Your task to perform on an android device: turn on location history Image 0: 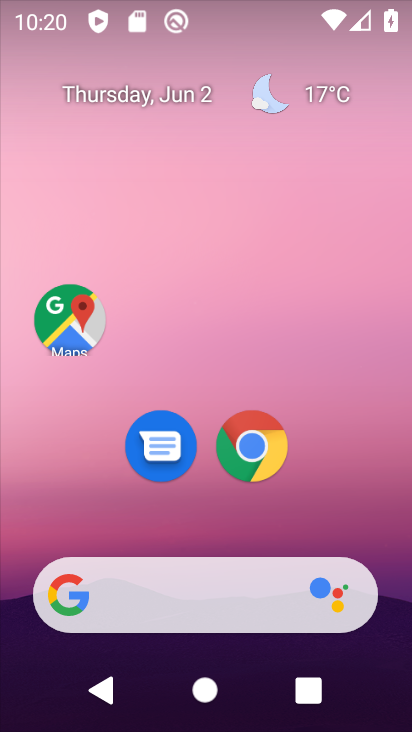
Step 0: drag from (341, 533) to (339, 49)
Your task to perform on an android device: turn on location history Image 1: 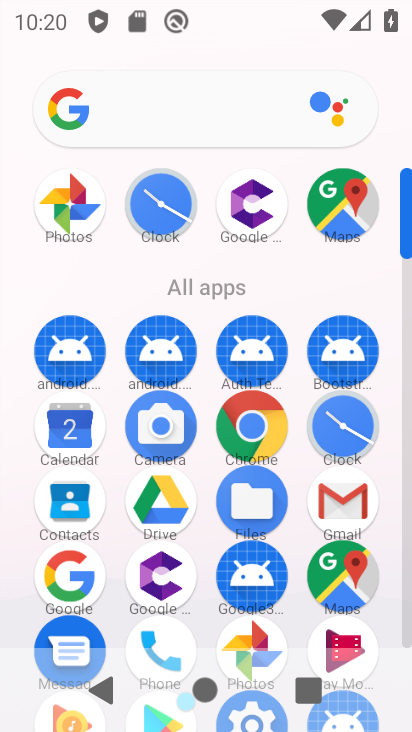
Step 1: click (263, 428)
Your task to perform on an android device: turn on location history Image 2: 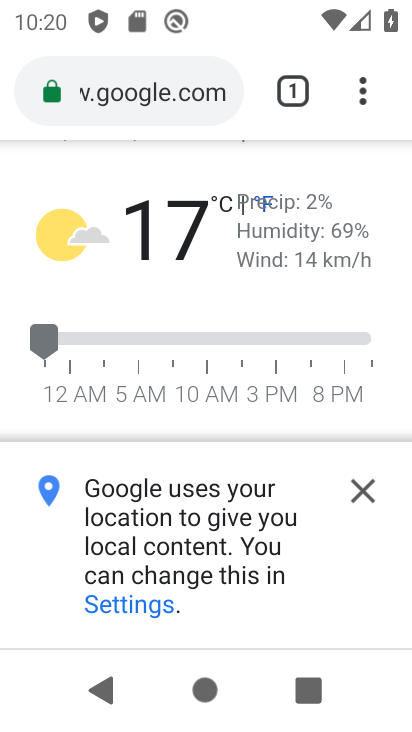
Step 2: drag from (363, 89) to (100, 713)
Your task to perform on an android device: turn on location history Image 3: 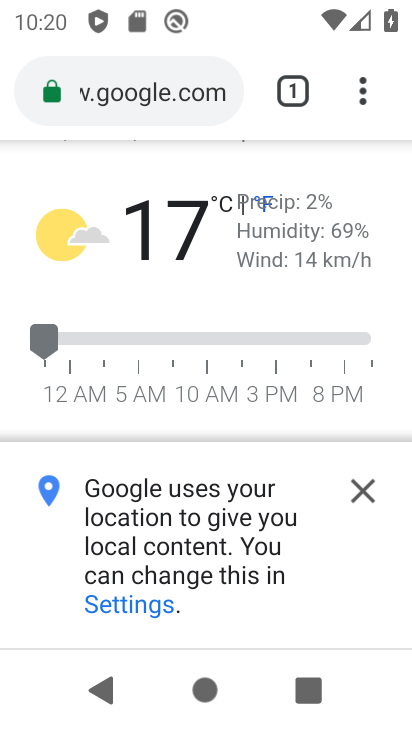
Step 3: drag from (381, 76) to (64, 473)
Your task to perform on an android device: turn on location history Image 4: 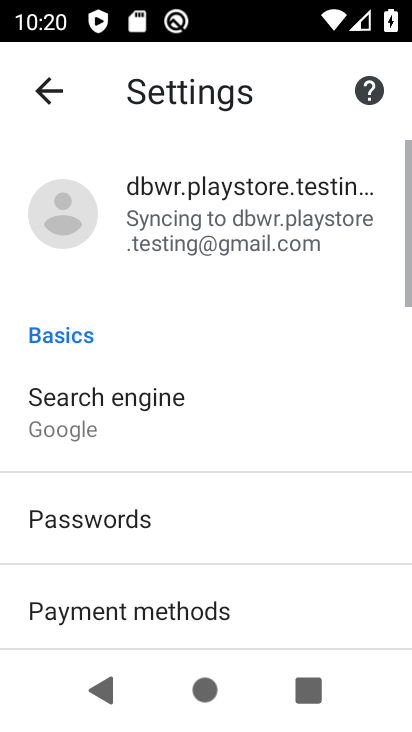
Step 4: drag from (298, 545) to (311, 97)
Your task to perform on an android device: turn on location history Image 5: 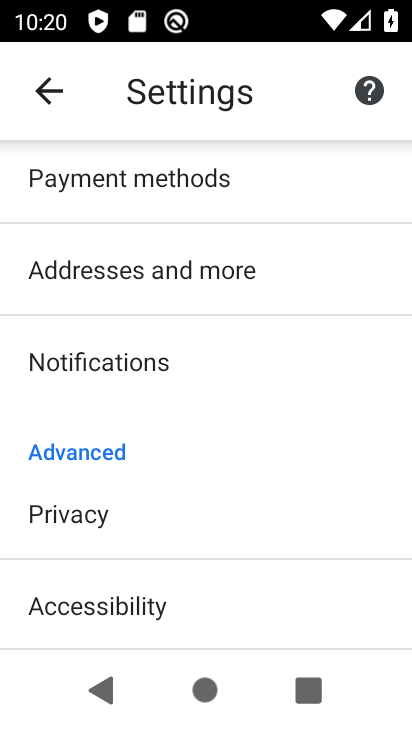
Step 5: drag from (231, 627) to (156, 49)
Your task to perform on an android device: turn on location history Image 6: 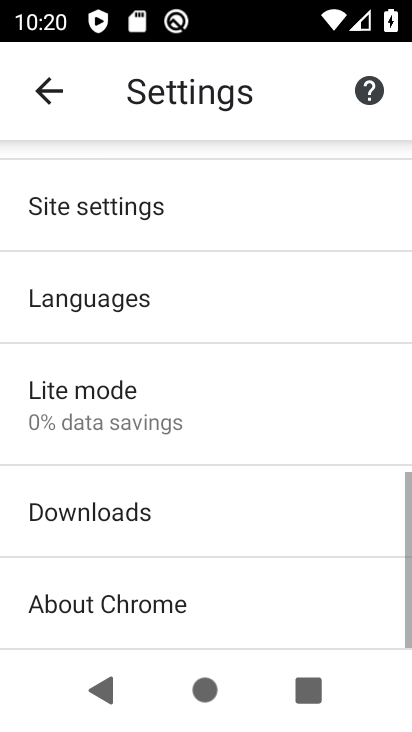
Step 6: drag from (202, 503) to (207, 404)
Your task to perform on an android device: turn on location history Image 7: 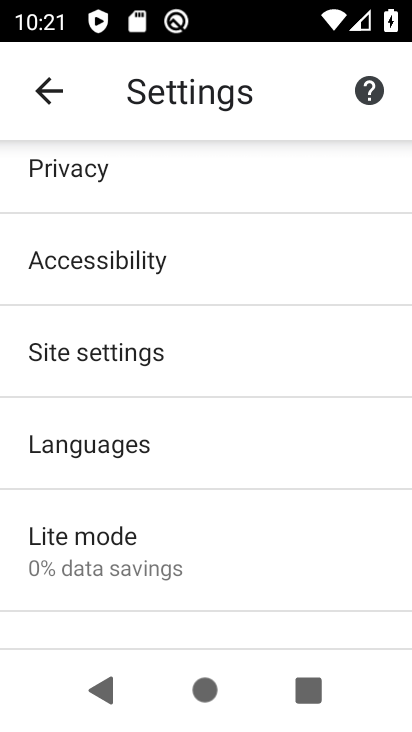
Step 7: press home button
Your task to perform on an android device: turn on location history Image 8: 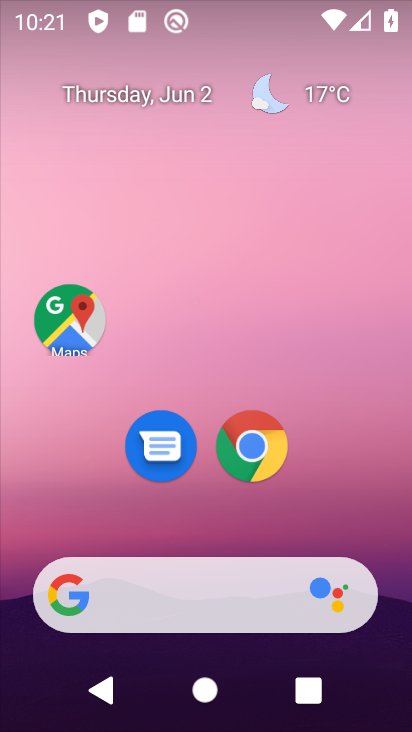
Step 8: drag from (174, 474) to (87, 2)
Your task to perform on an android device: turn on location history Image 9: 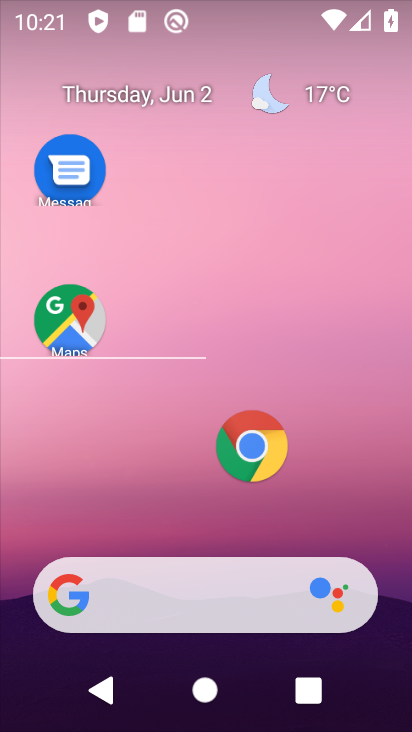
Step 9: click (127, 446)
Your task to perform on an android device: turn on location history Image 10: 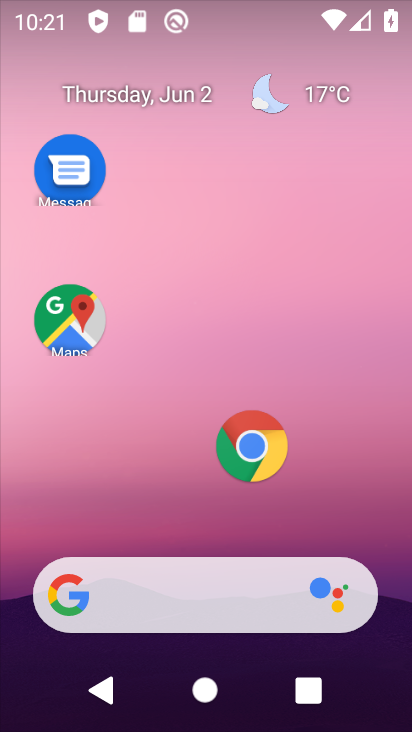
Step 10: drag from (141, 453) to (112, 4)
Your task to perform on an android device: turn on location history Image 11: 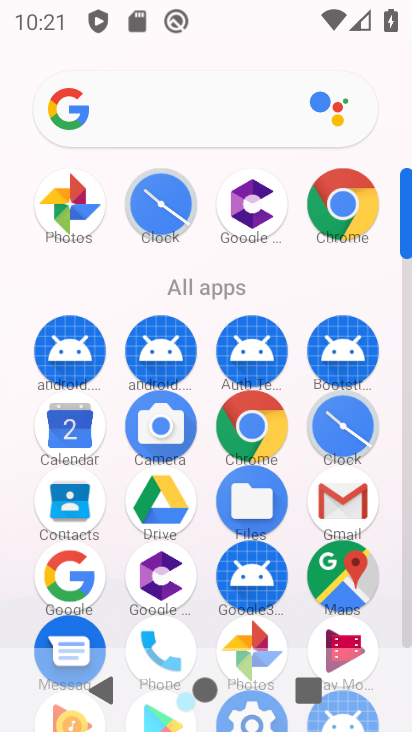
Step 11: click (331, 586)
Your task to perform on an android device: turn on location history Image 12: 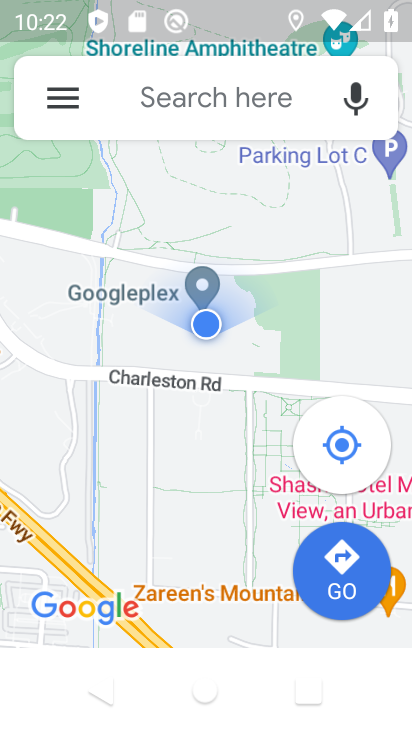
Step 12: click (65, 94)
Your task to perform on an android device: turn on location history Image 13: 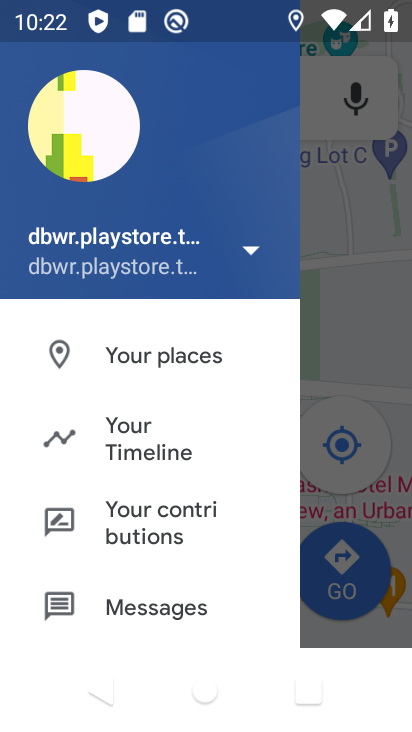
Step 13: drag from (182, 532) to (229, 262)
Your task to perform on an android device: turn on location history Image 14: 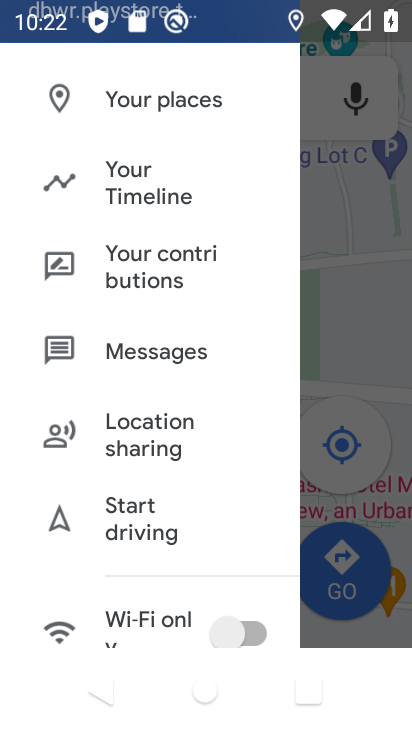
Step 14: click (92, 157)
Your task to perform on an android device: turn on location history Image 15: 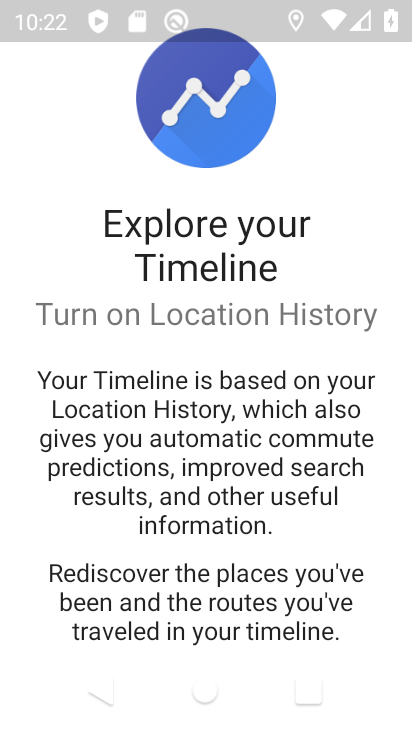
Step 15: drag from (215, 605) to (231, 168)
Your task to perform on an android device: turn on location history Image 16: 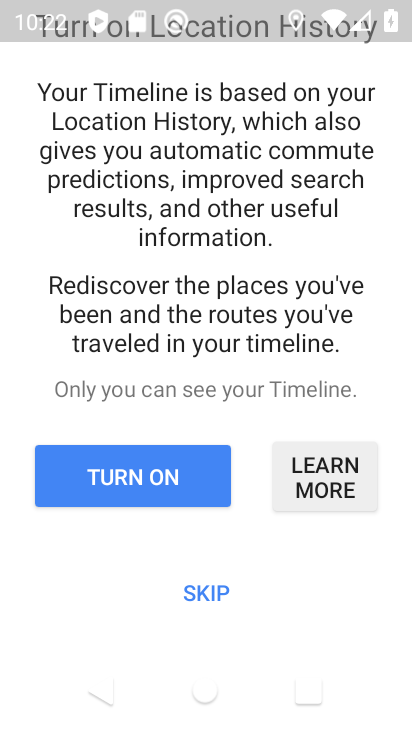
Step 16: click (183, 483)
Your task to perform on an android device: turn on location history Image 17: 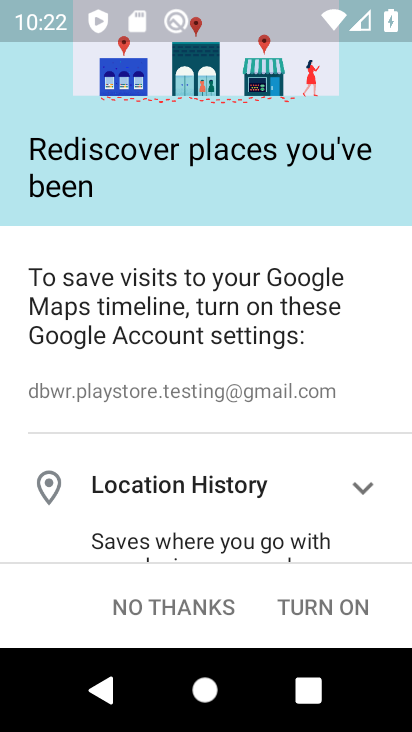
Step 17: drag from (255, 538) to (179, 1)
Your task to perform on an android device: turn on location history Image 18: 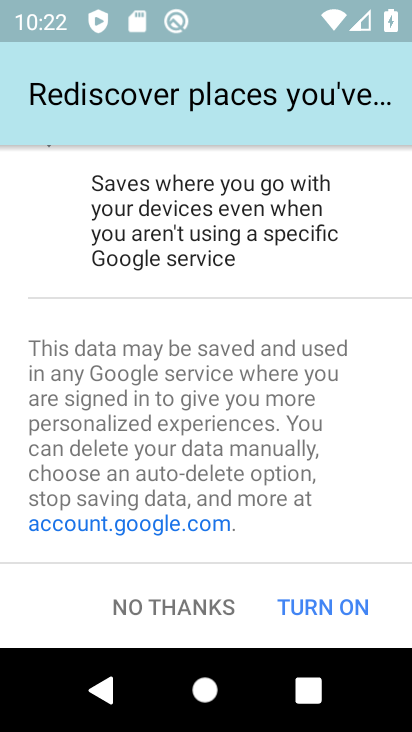
Step 18: click (340, 601)
Your task to perform on an android device: turn on location history Image 19: 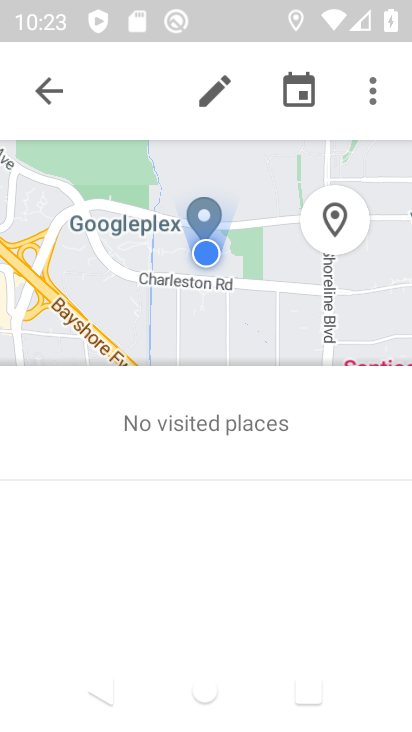
Step 19: drag from (384, 83) to (213, 591)
Your task to perform on an android device: turn on location history Image 20: 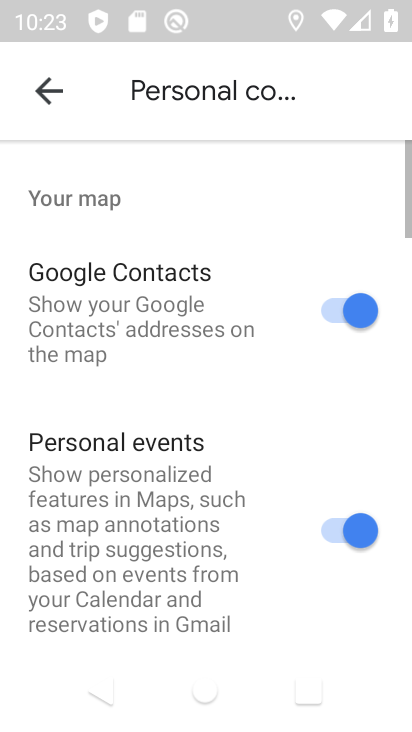
Step 20: drag from (213, 591) to (198, 58)
Your task to perform on an android device: turn on location history Image 21: 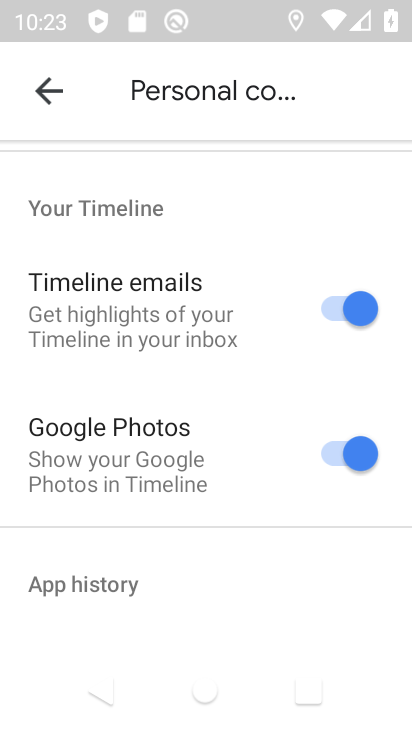
Step 21: drag from (129, 579) to (109, 3)
Your task to perform on an android device: turn on location history Image 22: 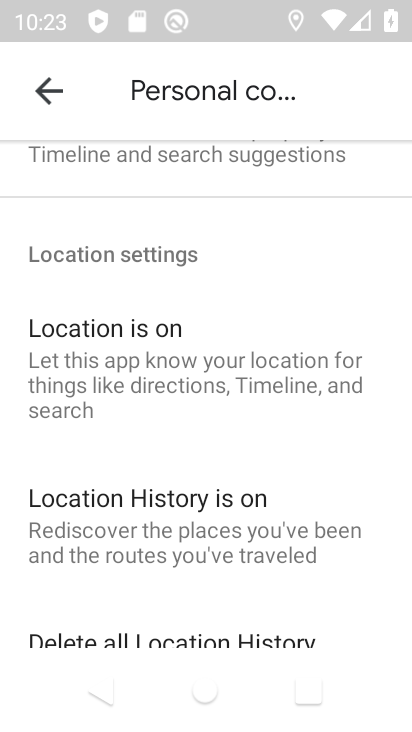
Step 22: click (159, 477)
Your task to perform on an android device: turn on location history Image 23: 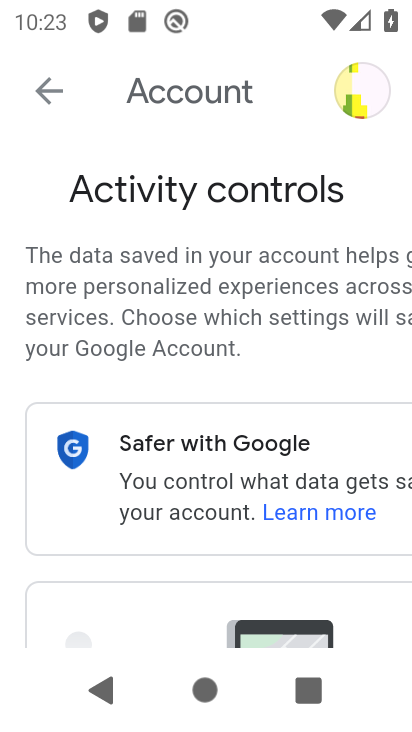
Step 23: task complete